Your task to perform on an android device: Turn off the flashlight Image 0: 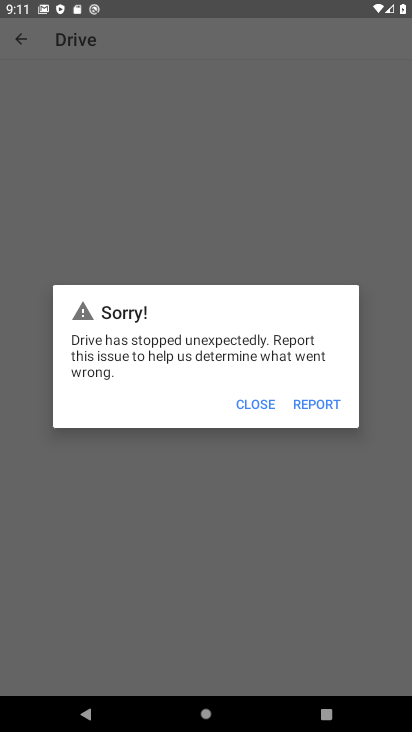
Step 0: press home button
Your task to perform on an android device: Turn off the flashlight Image 1: 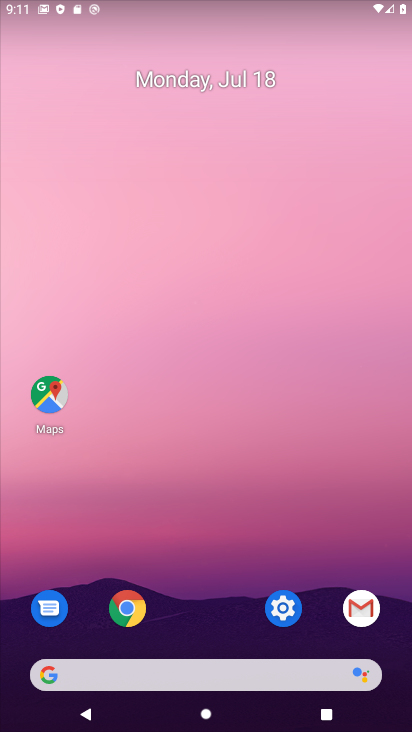
Step 1: click (279, 606)
Your task to perform on an android device: Turn off the flashlight Image 2: 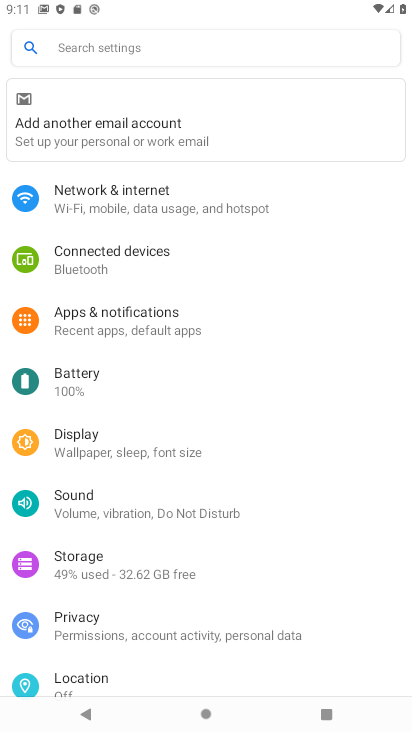
Step 2: click (77, 41)
Your task to perform on an android device: Turn off the flashlight Image 3: 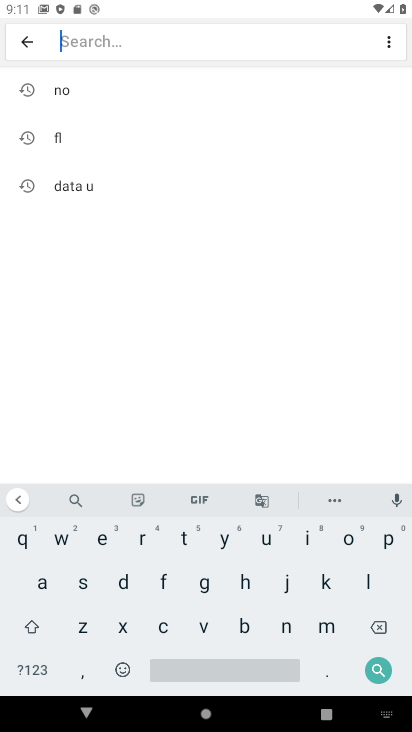
Step 3: click (163, 583)
Your task to perform on an android device: Turn off the flashlight Image 4: 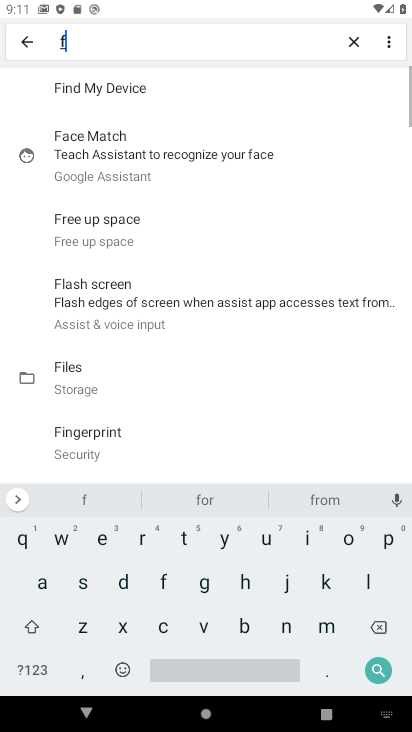
Step 4: click (373, 572)
Your task to perform on an android device: Turn off the flashlight Image 5: 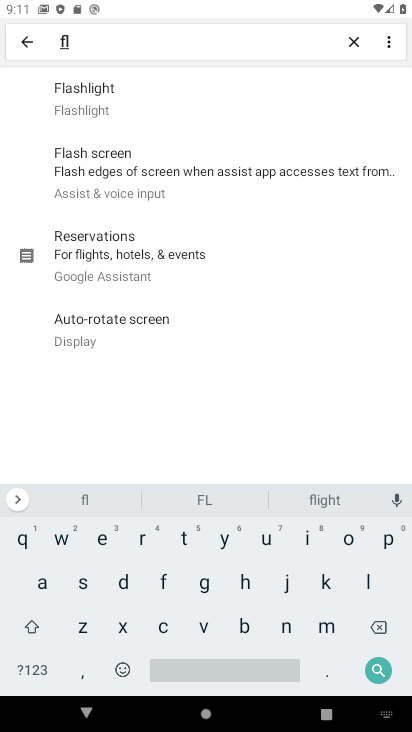
Step 5: click (56, 86)
Your task to perform on an android device: Turn off the flashlight Image 6: 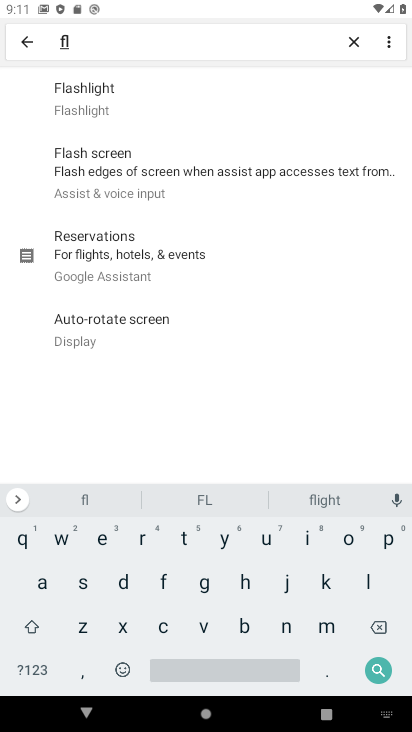
Step 6: task complete